Your task to perform on an android device: Check the weather Image 0: 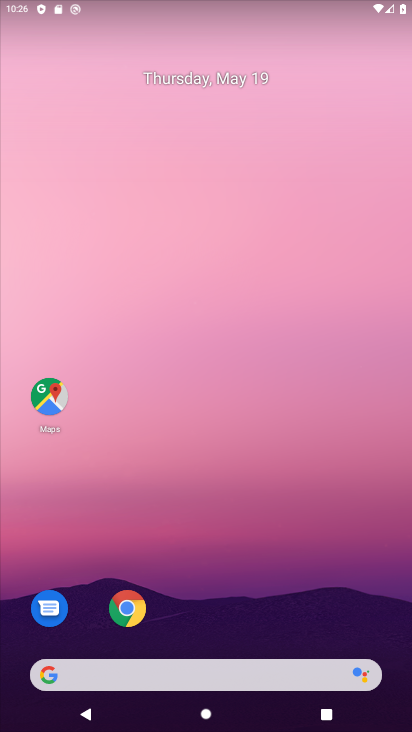
Step 0: drag from (2, 325) to (388, 285)
Your task to perform on an android device: Check the weather Image 1: 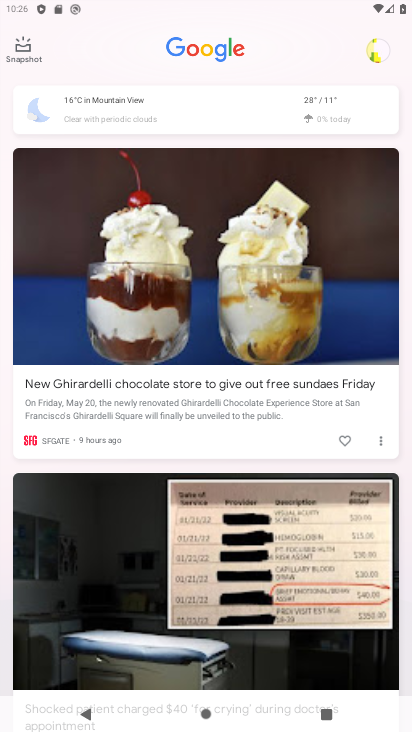
Step 1: click (318, 100)
Your task to perform on an android device: Check the weather Image 2: 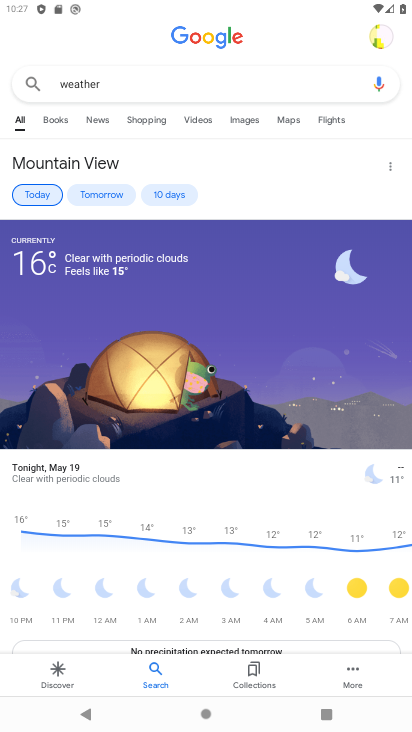
Step 2: click (32, 198)
Your task to perform on an android device: Check the weather Image 3: 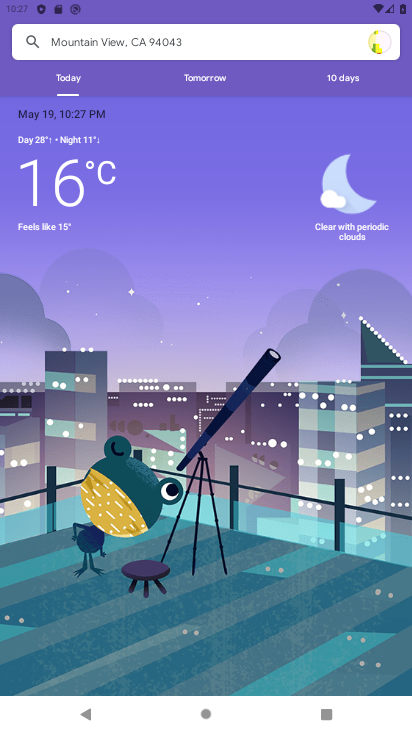
Step 3: task complete